Your task to perform on an android device: turn off data saver in the chrome app Image 0: 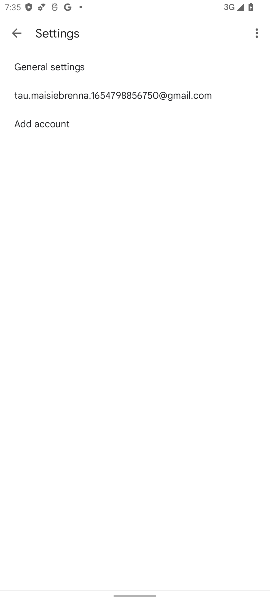
Step 0: press home button
Your task to perform on an android device: turn off data saver in the chrome app Image 1: 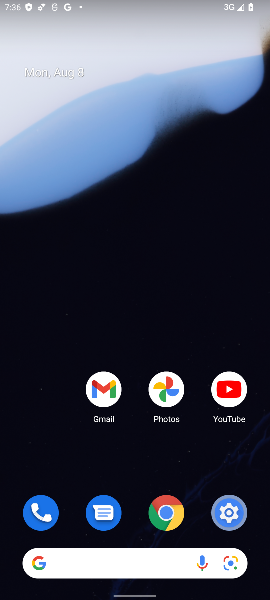
Step 1: click (170, 514)
Your task to perform on an android device: turn off data saver in the chrome app Image 2: 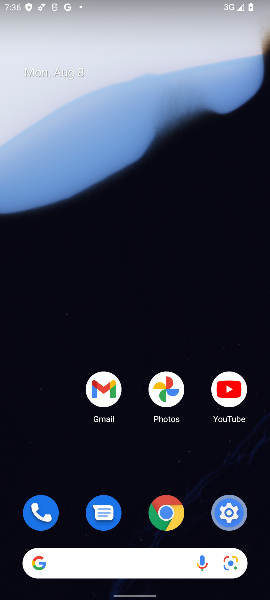
Step 2: click (170, 514)
Your task to perform on an android device: turn off data saver in the chrome app Image 3: 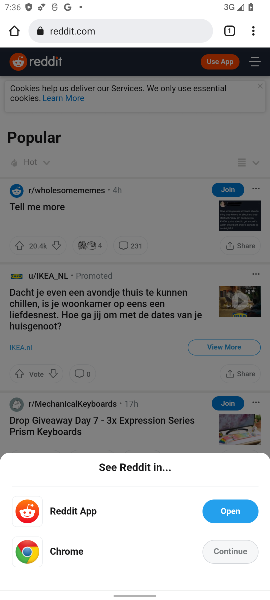
Step 3: click (253, 29)
Your task to perform on an android device: turn off data saver in the chrome app Image 4: 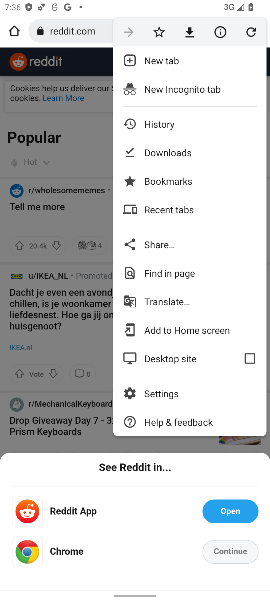
Step 4: click (171, 396)
Your task to perform on an android device: turn off data saver in the chrome app Image 5: 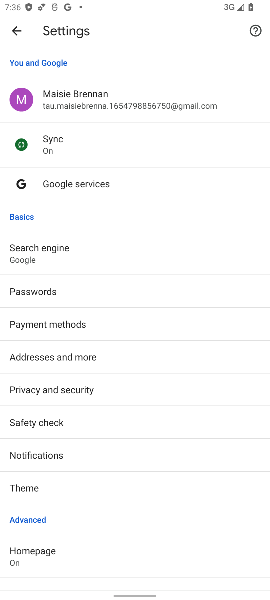
Step 5: drag from (176, 493) to (233, 224)
Your task to perform on an android device: turn off data saver in the chrome app Image 6: 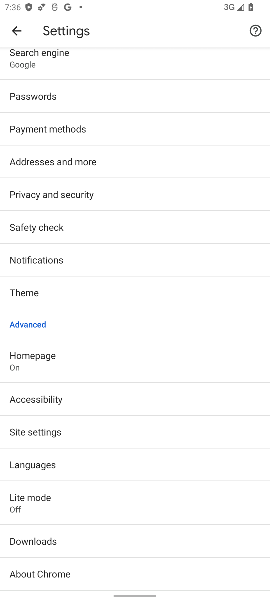
Step 6: click (77, 506)
Your task to perform on an android device: turn off data saver in the chrome app Image 7: 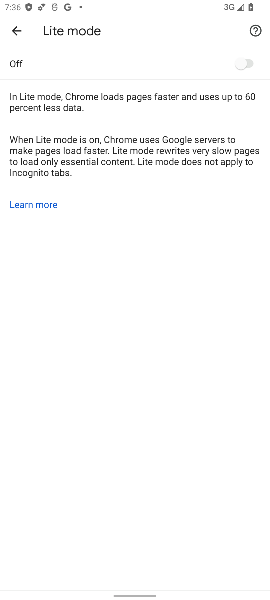
Step 7: task complete